Your task to perform on an android device: find which apps use the phone's location Image 0: 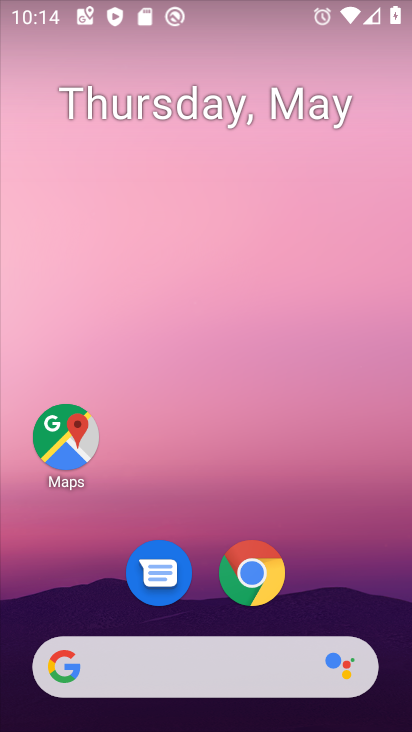
Step 0: drag from (204, 616) to (212, 319)
Your task to perform on an android device: find which apps use the phone's location Image 1: 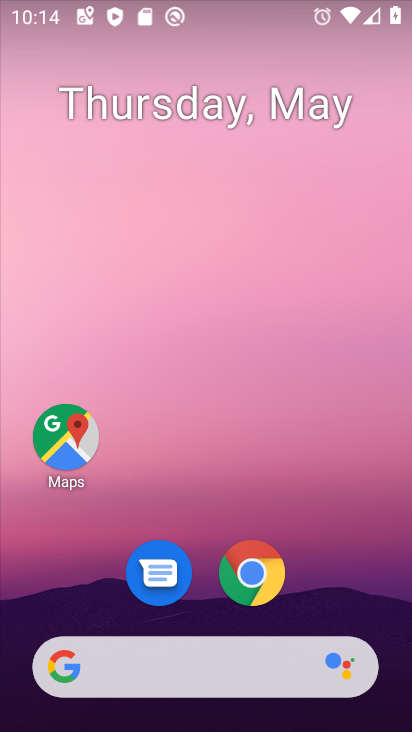
Step 1: drag from (218, 603) to (218, 206)
Your task to perform on an android device: find which apps use the phone's location Image 2: 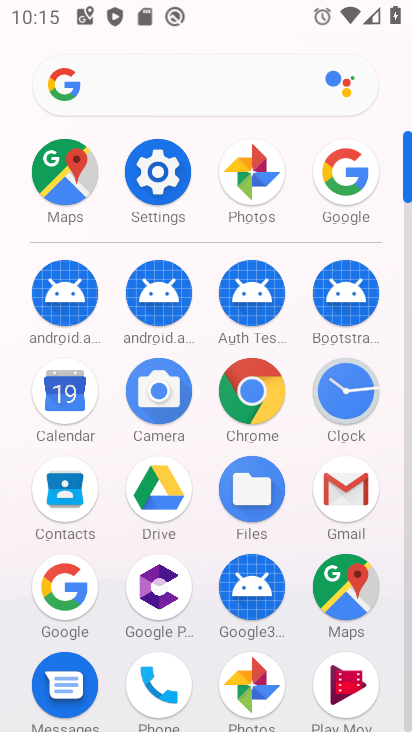
Step 2: click (189, 182)
Your task to perform on an android device: find which apps use the phone's location Image 3: 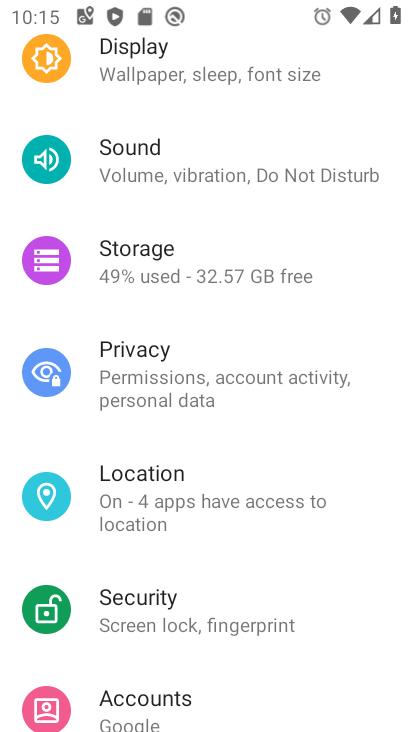
Step 3: click (208, 497)
Your task to perform on an android device: find which apps use the phone's location Image 4: 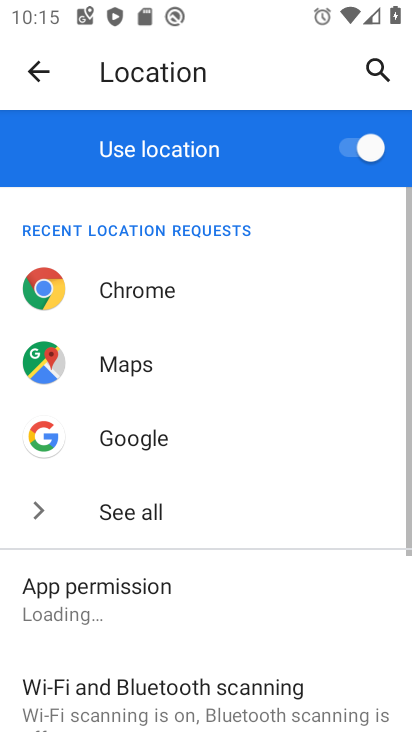
Step 4: drag from (263, 608) to (267, 339)
Your task to perform on an android device: find which apps use the phone's location Image 5: 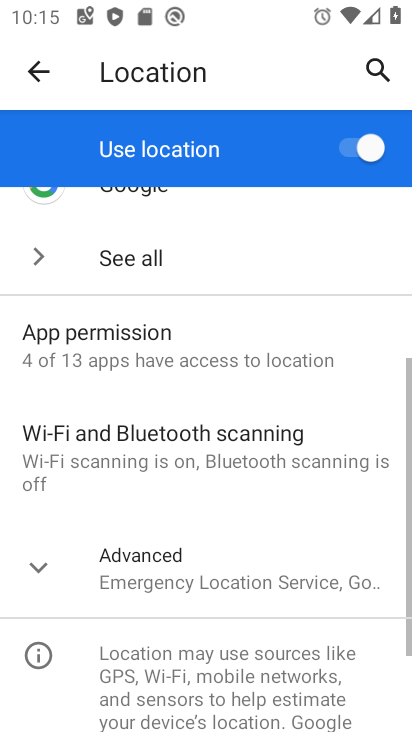
Step 5: drag from (273, 597) to (254, 231)
Your task to perform on an android device: find which apps use the phone's location Image 6: 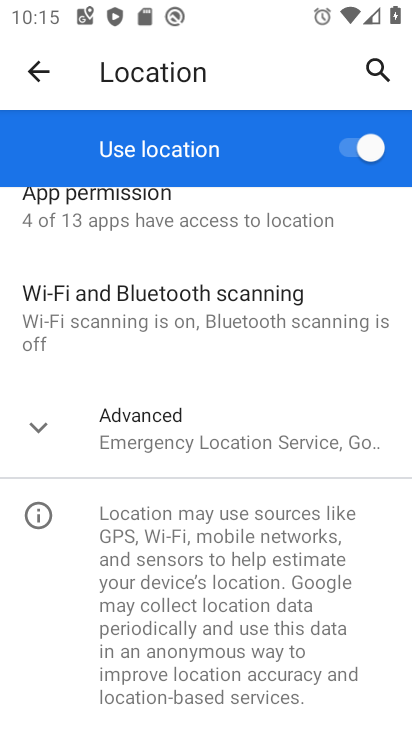
Step 6: click (182, 232)
Your task to perform on an android device: find which apps use the phone's location Image 7: 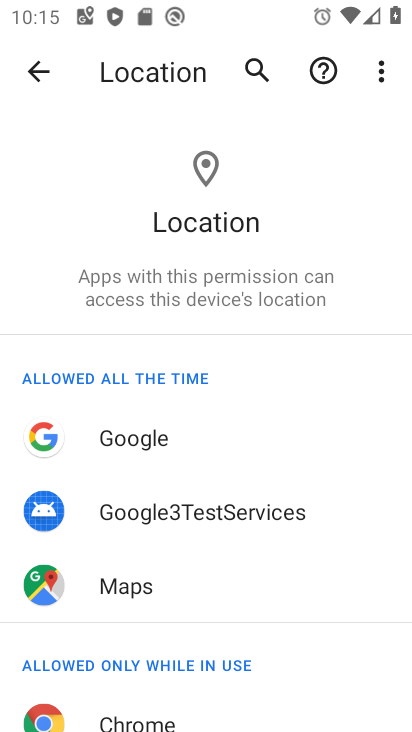
Step 7: task complete